Your task to perform on an android device: turn notification dots on Image 0: 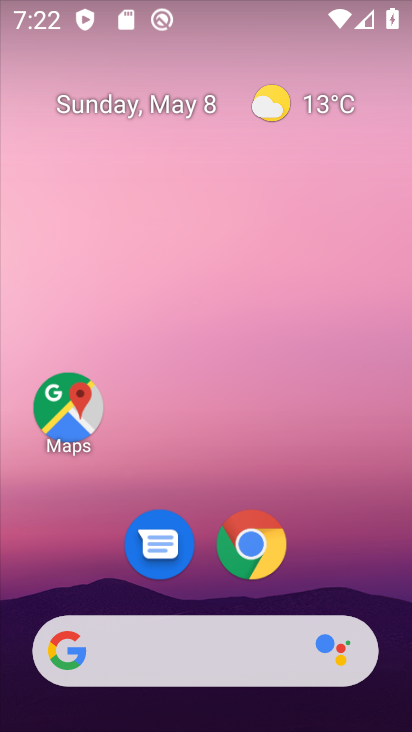
Step 0: drag from (339, 544) to (274, 6)
Your task to perform on an android device: turn notification dots on Image 1: 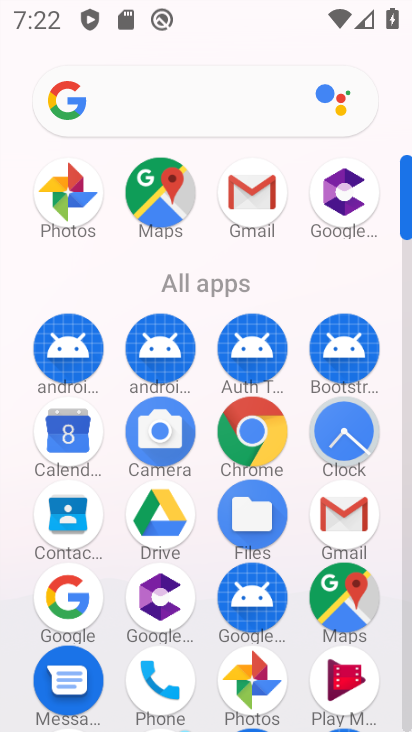
Step 1: drag from (207, 659) to (145, 293)
Your task to perform on an android device: turn notification dots on Image 2: 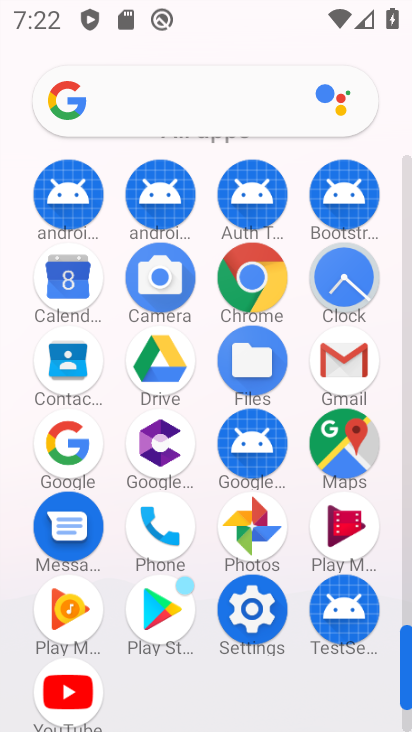
Step 2: click (241, 608)
Your task to perform on an android device: turn notification dots on Image 3: 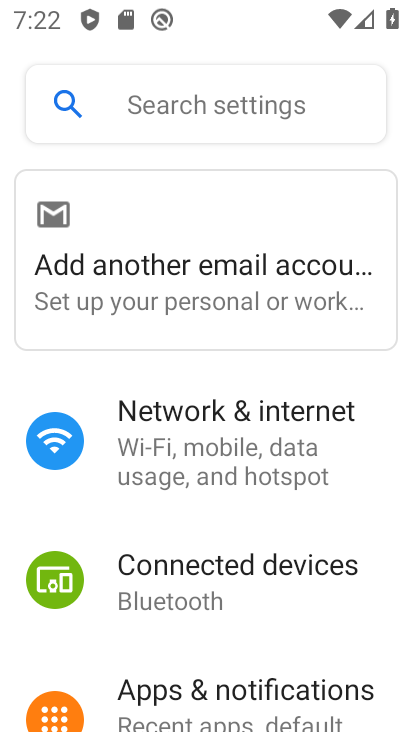
Step 3: click (223, 692)
Your task to perform on an android device: turn notification dots on Image 4: 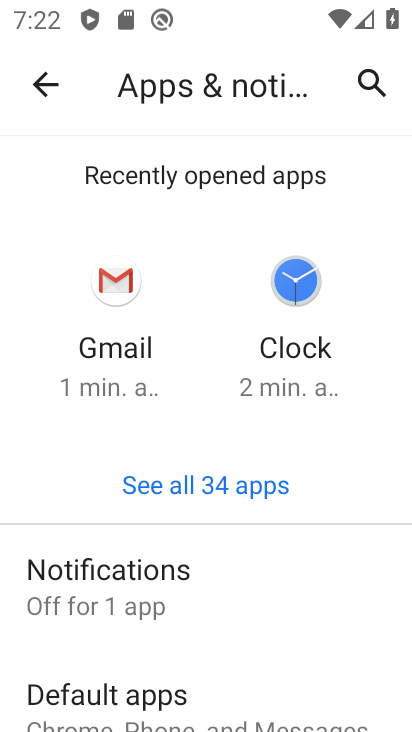
Step 4: click (126, 569)
Your task to perform on an android device: turn notification dots on Image 5: 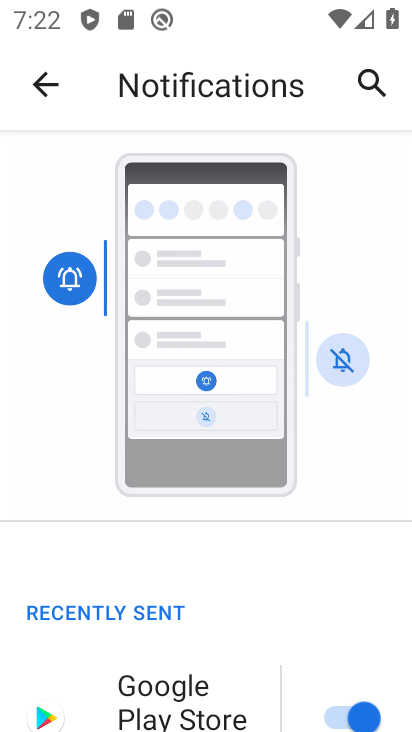
Step 5: drag from (245, 584) to (244, 318)
Your task to perform on an android device: turn notification dots on Image 6: 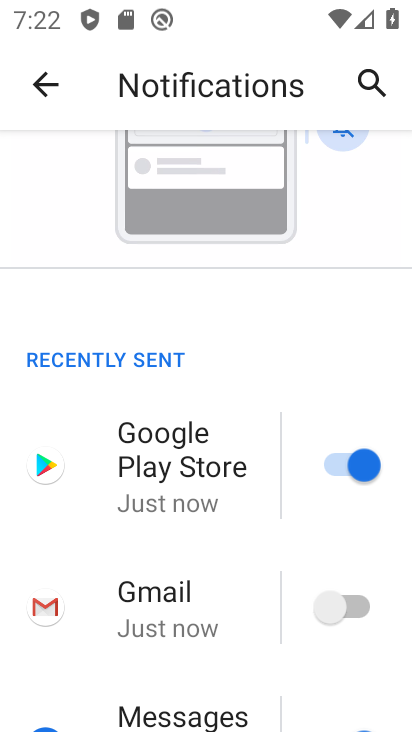
Step 6: drag from (188, 682) to (233, 341)
Your task to perform on an android device: turn notification dots on Image 7: 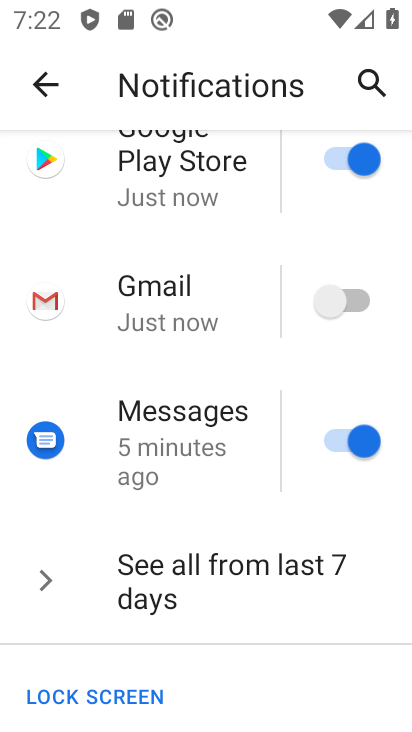
Step 7: drag from (245, 678) to (224, 271)
Your task to perform on an android device: turn notification dots on Image 8: 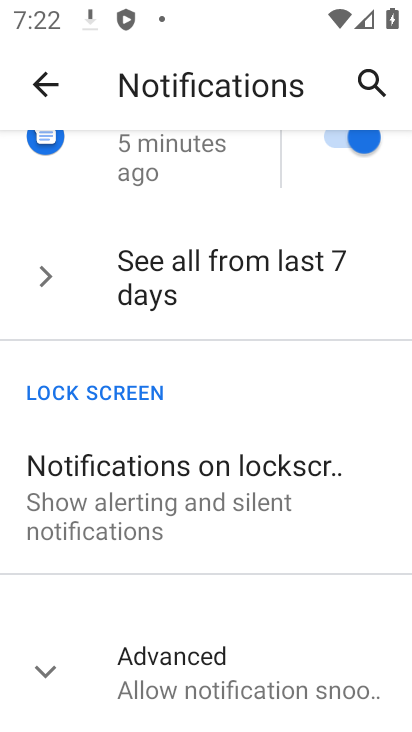
Step 8: drag from (207, 673) to (195, 406)
Your task to perform on an android device: turn notification dots on Image 9: 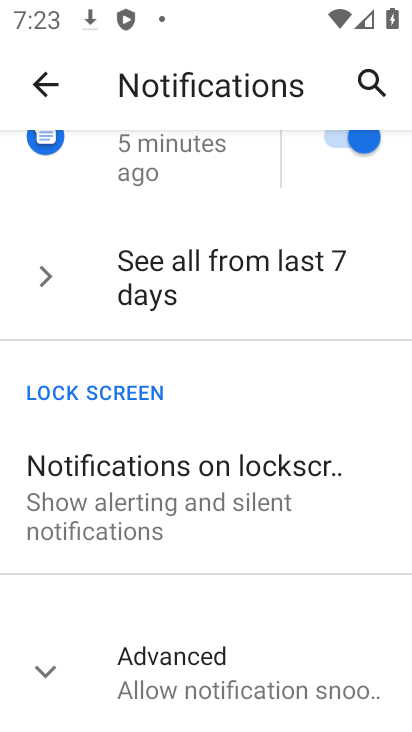
Step 9: click (53, 668)
Your task to perform on an android device: turn notification dots on Image 10: 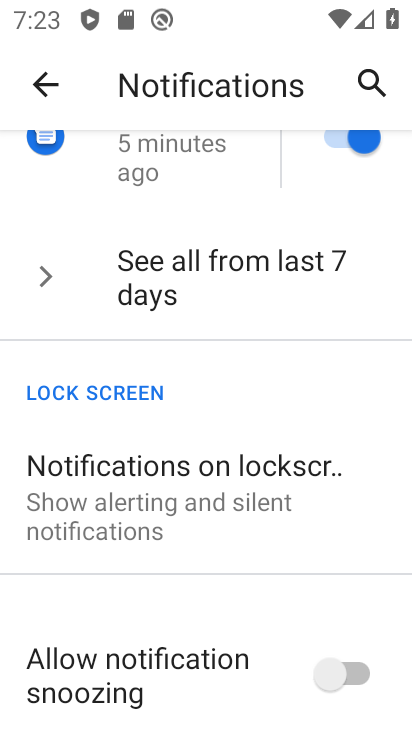
Step 10: task complete